Your task to perform on an android device: Do I have any events today? Image 0: 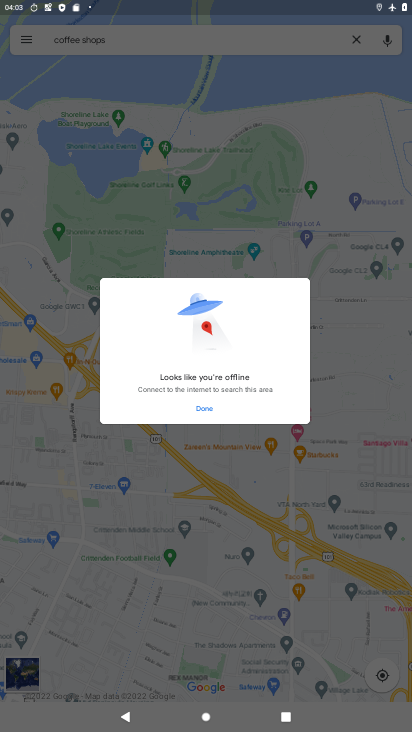
Step 0: press home button
Your task to perform on an android device: Do I have any events today? Image 1: 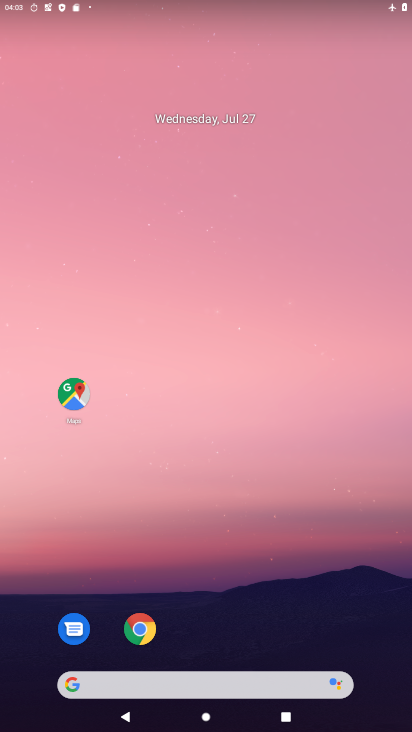
Step 1: drag from (308, 582) to (180, 75)
Your task to perform on an android device: Do I have any events today? Image 2: 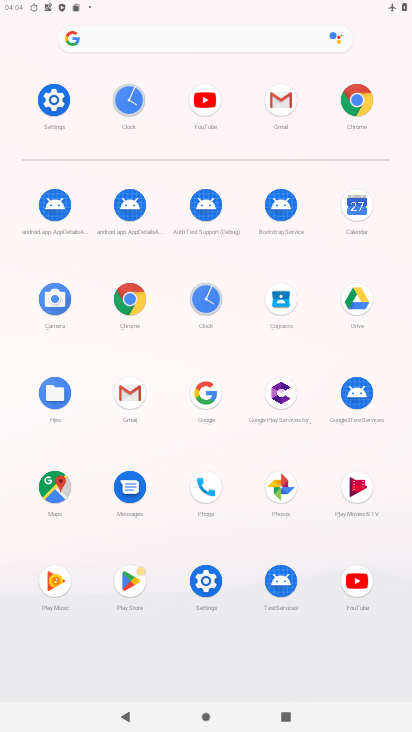
Step 2: click (360, 204)
Your task to perform on an android device: Do I have any events today? Image 3: 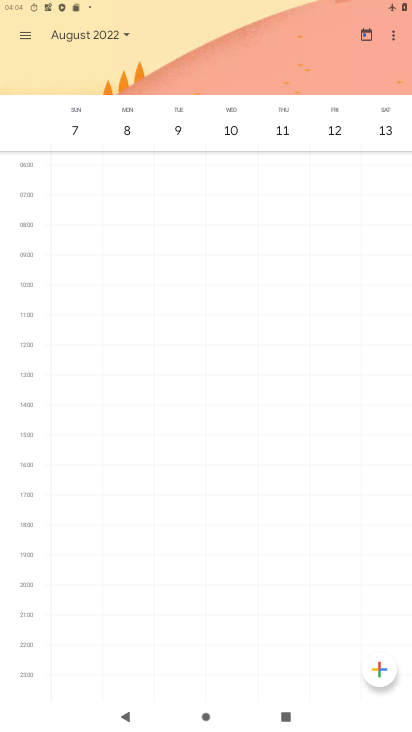
Step 3: click (99, 45)
Your task to perform on an android device: Do I have any events today? Image 4: 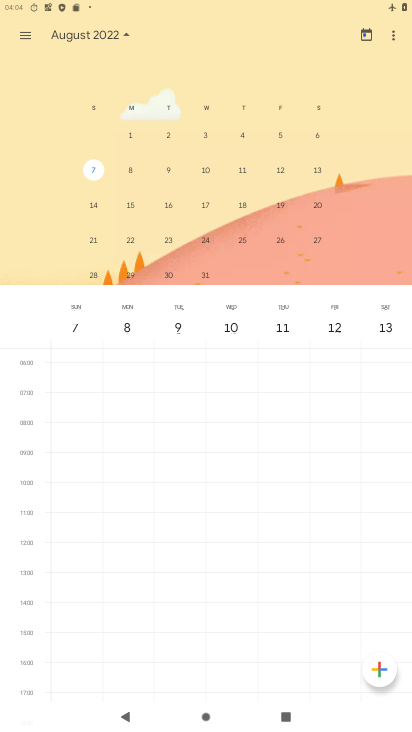
Step 4: drag from (105, 190) to (410, 191)
Your task to perform on an android device: Do I have any events today? Image 5: 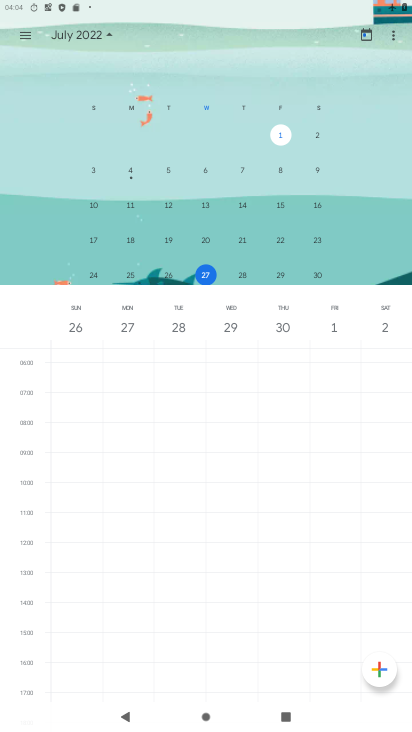
Step 5: click (212, 274)
Your task to perform on an android device: Do I have any events today? Image 6: 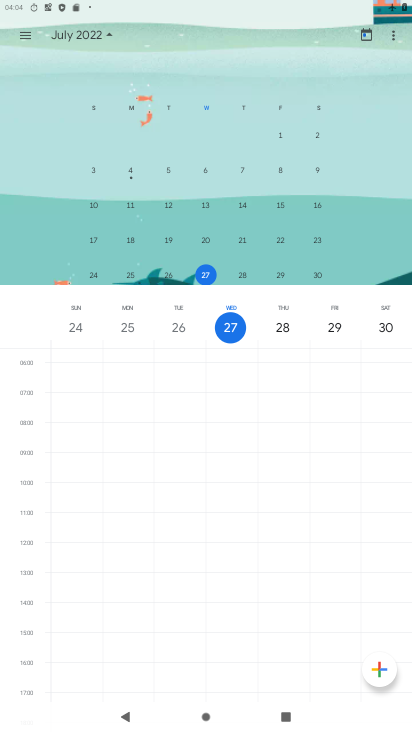
Step 6: click (234, 333)
Your task to perform on an android device: Do I have any events today? Image 7: 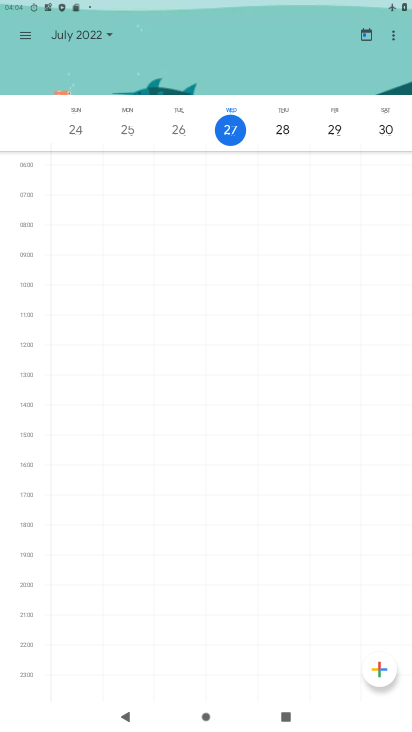
Step 7: click (215, 111)
Your task to perform on an android device: Do I have any events today? Image 8: 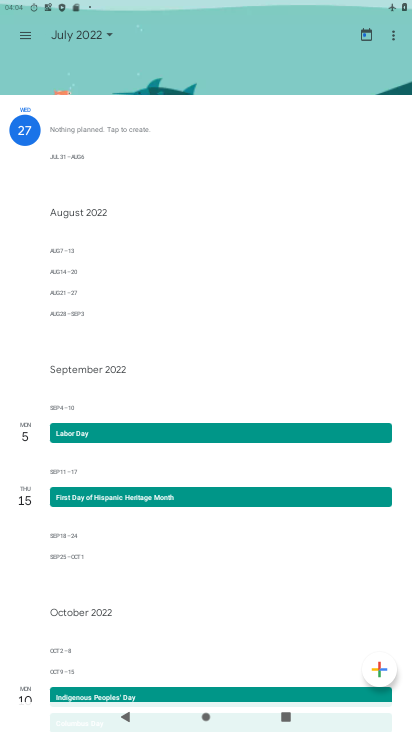
Step 8: task complete